Your task to perform on an android device: stop showing notifications on the lock screen Image 0: 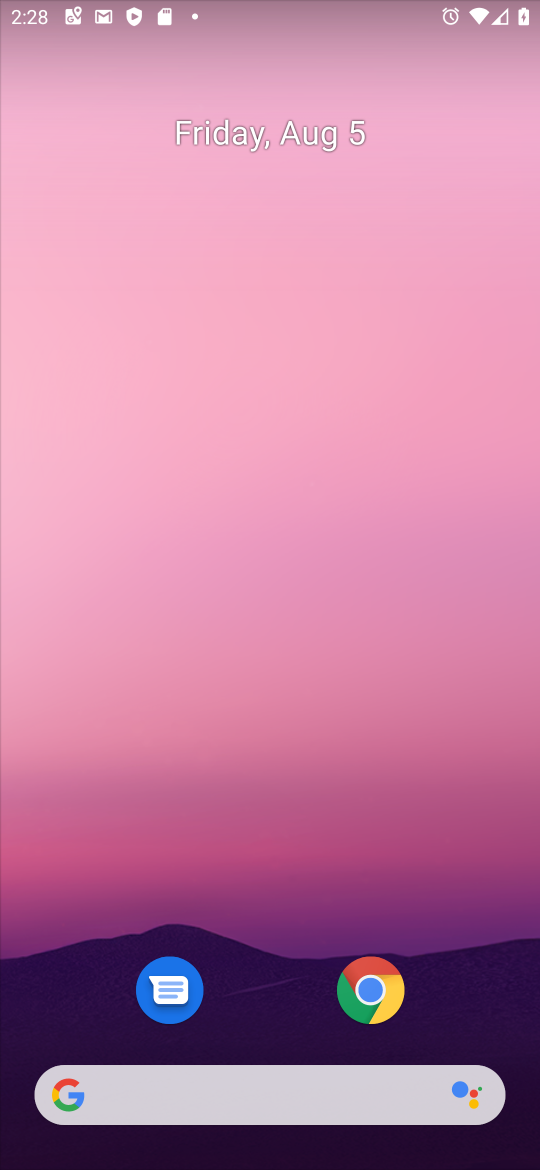
Step 0: drag from (240, 1089) to (175, 101)
Your task to perform on an android device: stop showing notifications on the lock screen Image 1: 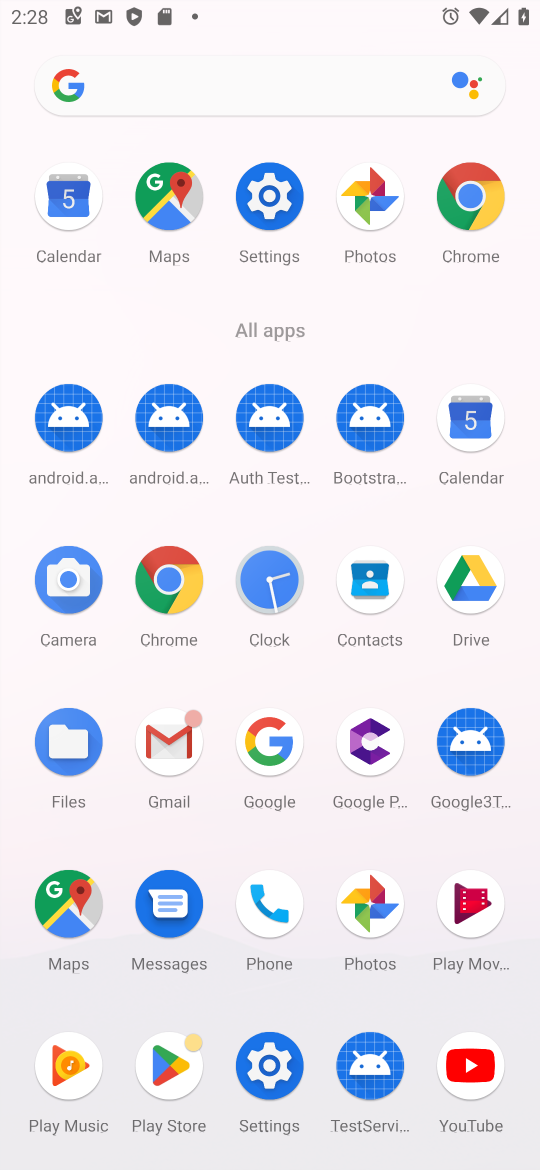
Step 1: click (266, 1074)
Your task to perform on an android device: stop showing notifications on the lock screen Image 2: 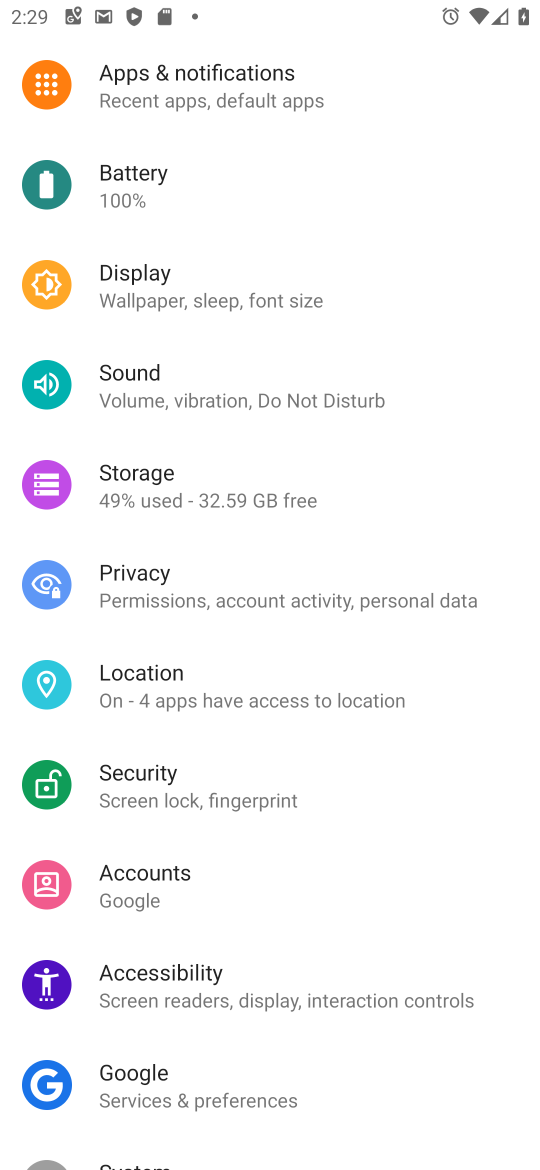
Step 2: click (183, 94)
Your task to perform on an android device: stop showing notifications on the lock screen Image 3: 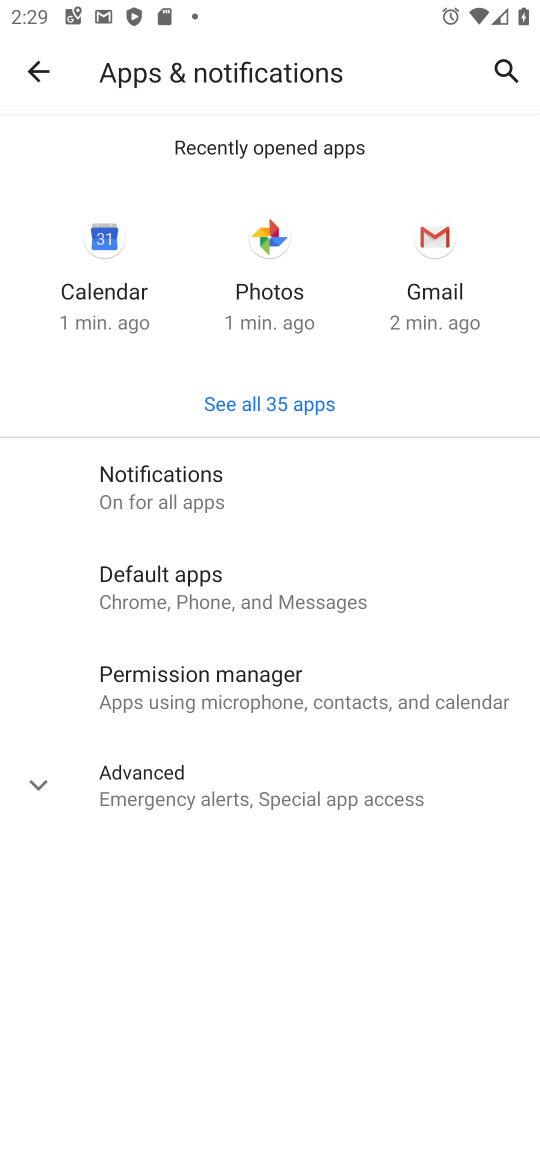
Step 3: click (215, 509)
Your task to perform on an android device: stop showing notifications on the lock screen Image 4: 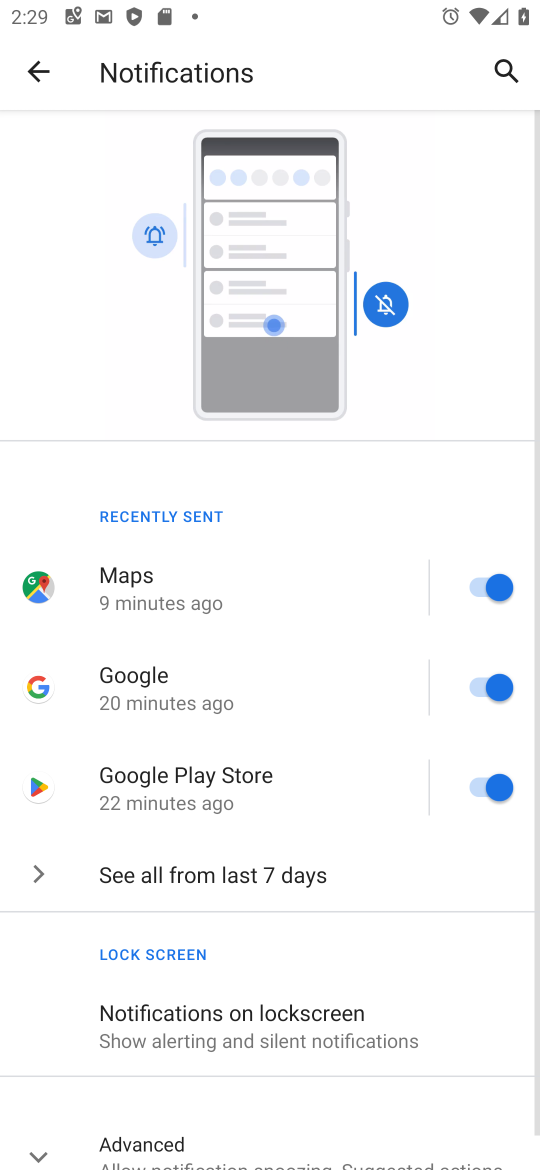
Step 4: click (283, 1032)
Your task to perform on an android device: stop showing notifications on the lock screen Image 5: 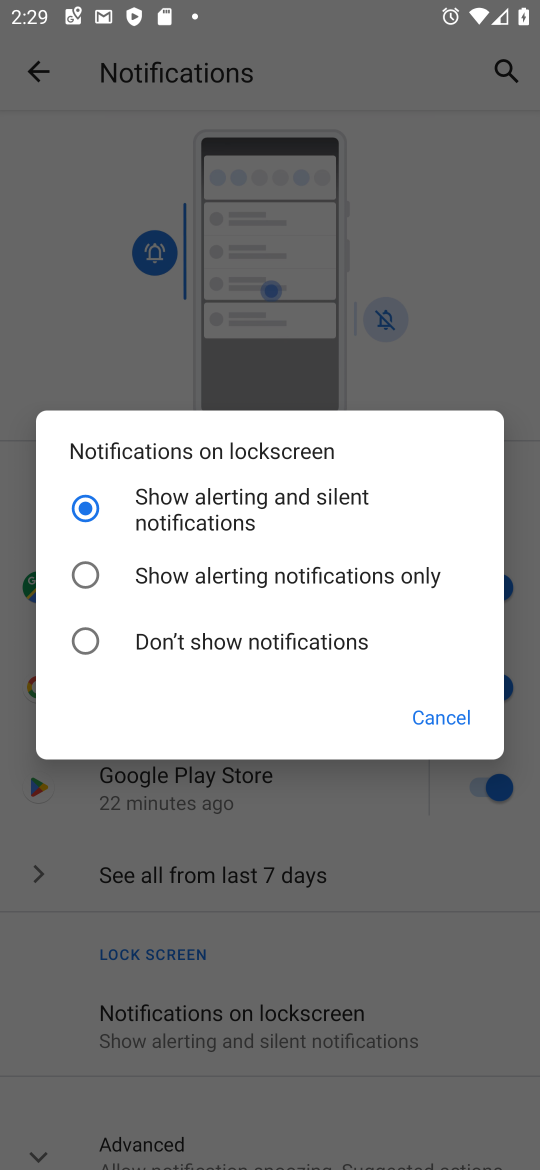
Step 5: click (193, 642)
Your task to perform on an android device: stop showing notifications on the lock screen Image 6: 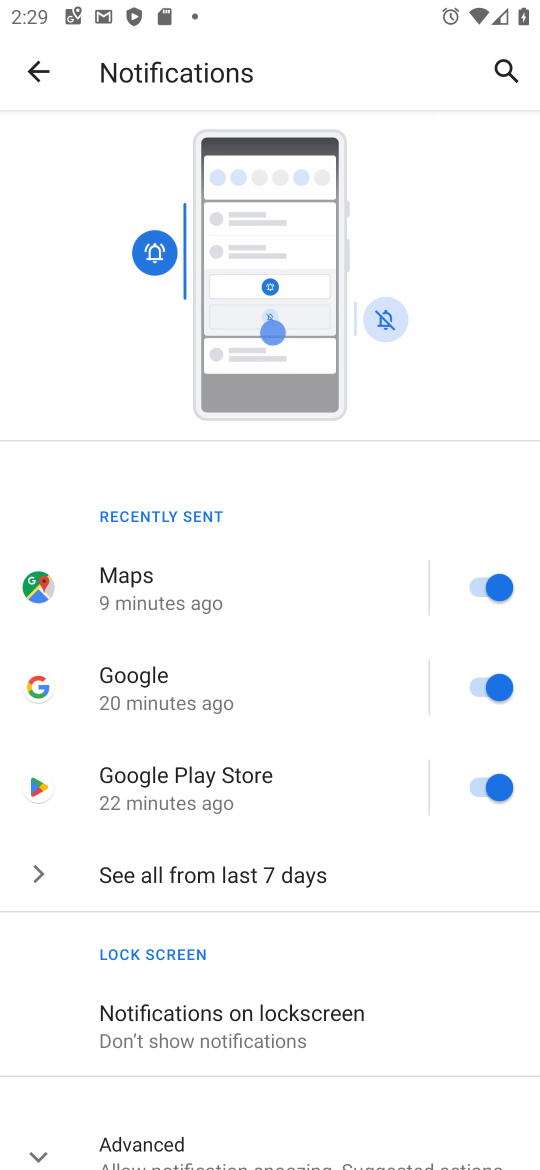
Step 6: task complete